Your task to perform on an android device: Do I have any events tomorrow? Image 0: 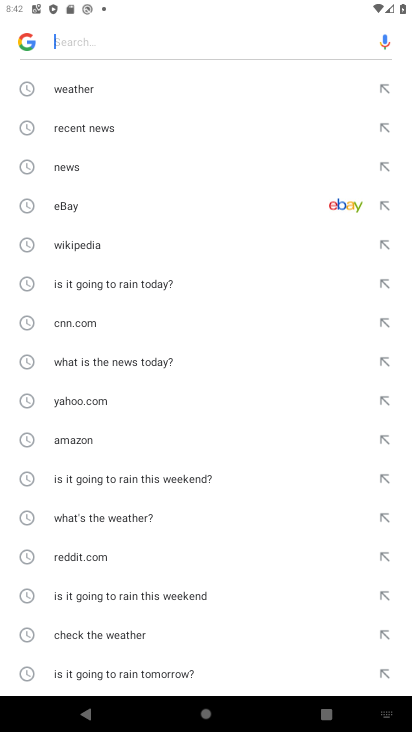
Step 0: press home button
Your task to perform on an android device: Do I have any events tomorrow? Image 1: 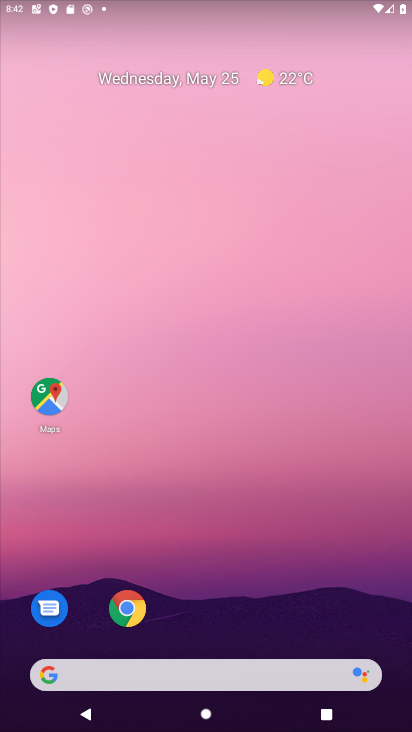
Step 1: drag from (254, 616) to (210, 130)
Your task to perform on an android device: Do I have any events tomorrow? Image 2: 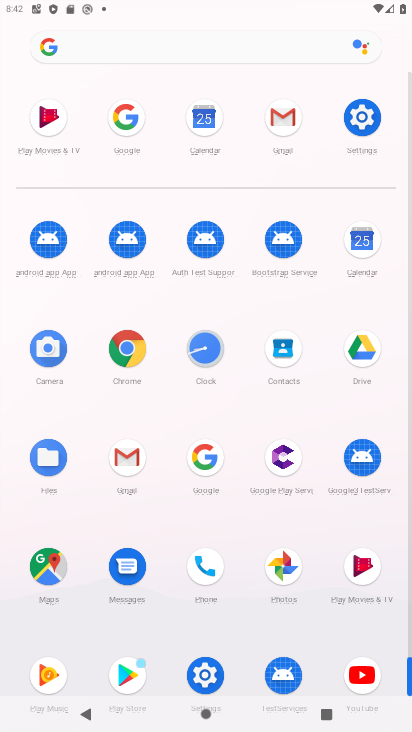
Step 2: click (363, 241)
Your task to perform on an android device: Do I have any events tomorrow? Image 3: 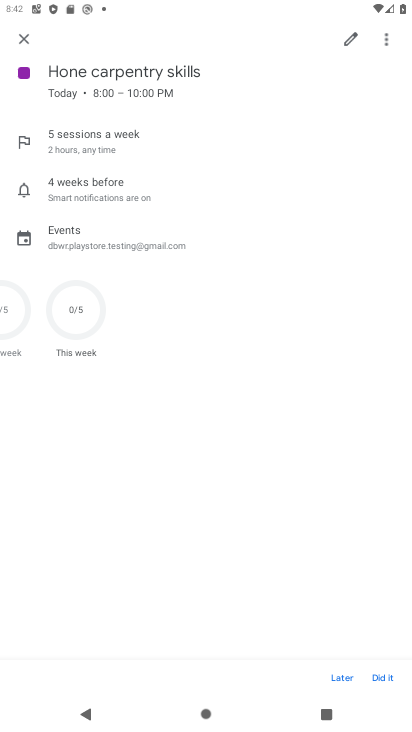
Step 3: click (24, 38)
Your task to perform on an android device: Do I have any events tomorrow? Image 4: 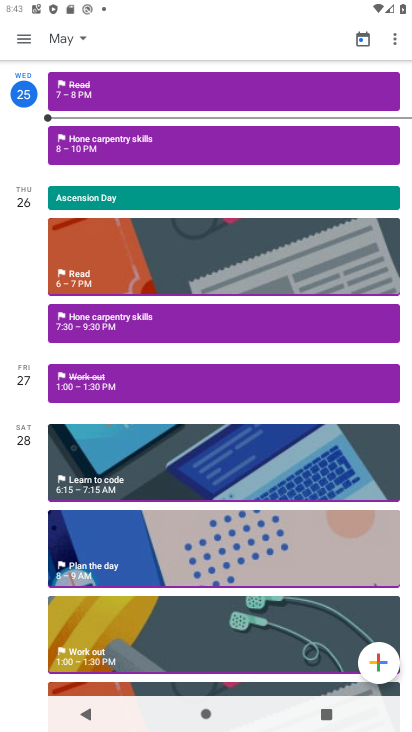
Step 4: click (359, 38)
Your task to perform on an android device: Do I have any events tomorrow? Image 5: 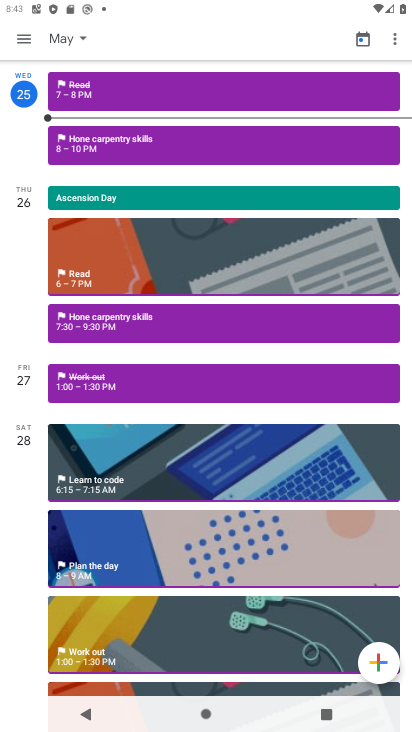
Step 5: click (83, 37)
Your task to perform on an android device: Do I have any events tomorrow? Image 6: 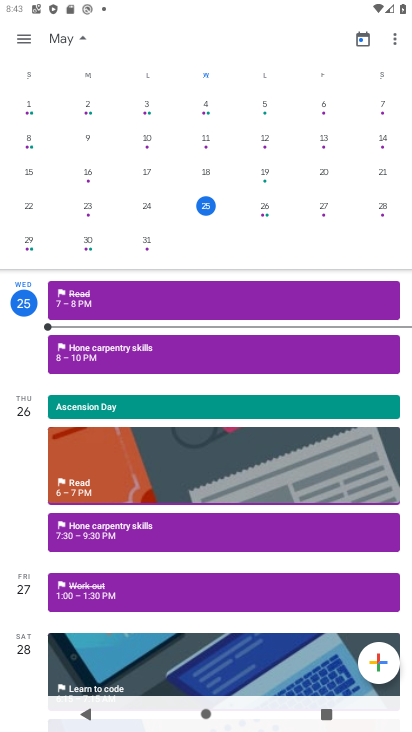
Step 6: click (262, 208)
Your task to perform on an android device: Do I have any events tomorrow? Image 7: 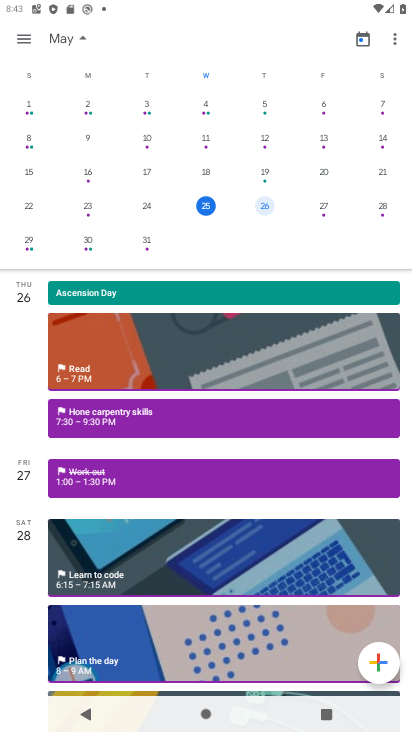
Step 7: click (185, 421)
Your task to perform on an android device: Do I have any events tomorrow? Image 8: 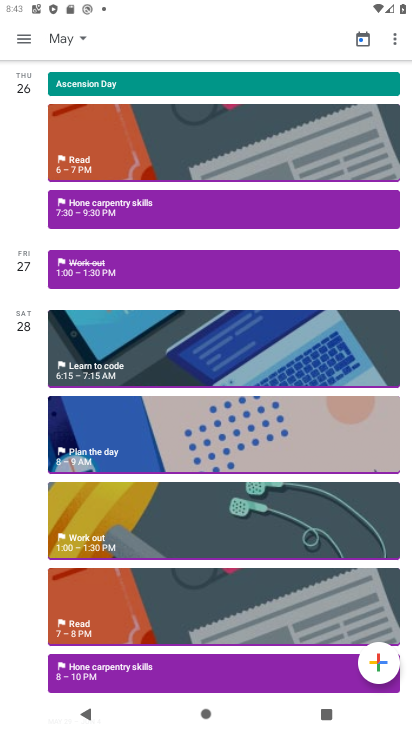
Step 8: click (173, 215)
Your task to perform on an android device: Do I have any events tomorrow? Image 9: 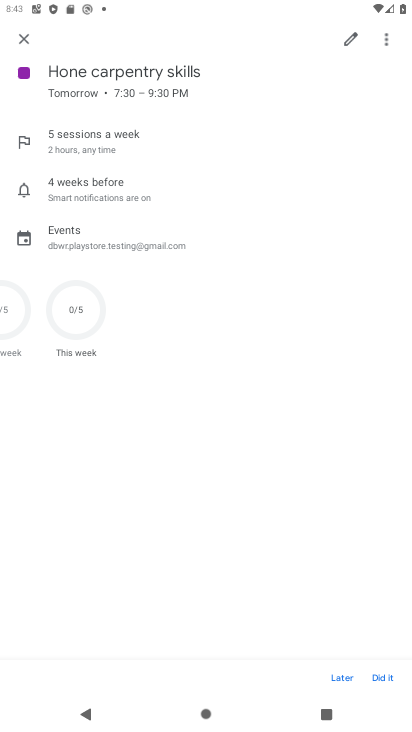
Step 9: task complete